Your task to perform on an android device: Show me popular games on the Play Store Image 0: 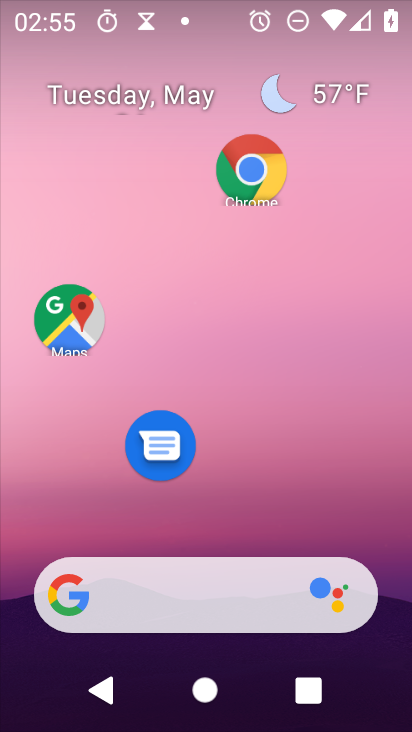
Step 0: drag from (211, 723) to (212, 105)
Your task to perform on an android device: Show me popular games on the Play Store Image 1: 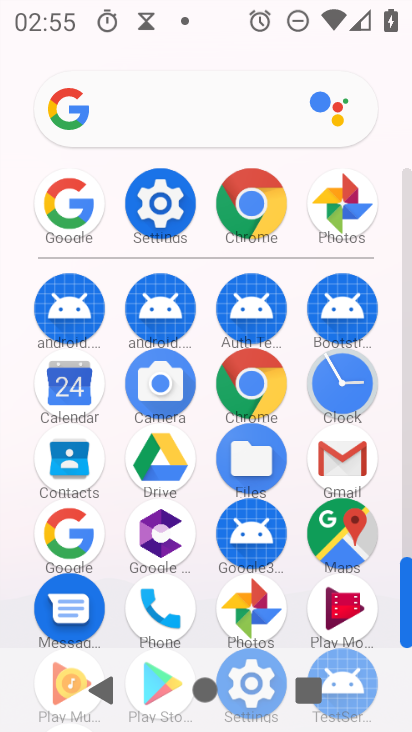
Step 1: drag from (191, 646) to (197, 193)
Your task to perform on an android device: Show me popular games on the Play Store Image 2: 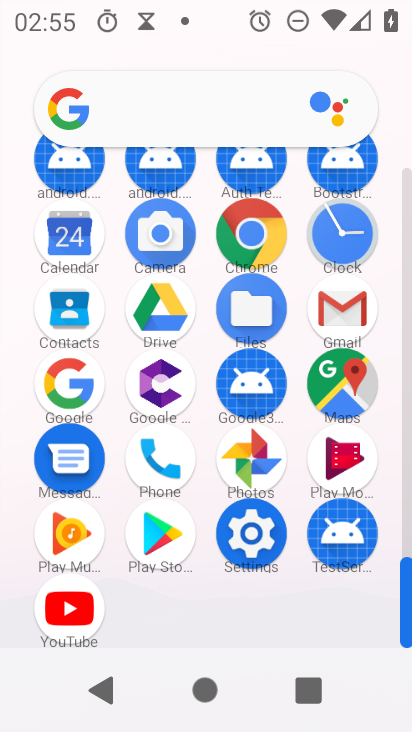
Step 2: click (171, 537)
Your task to perform on an android device: Show me popular games on the Play Store Image 3: 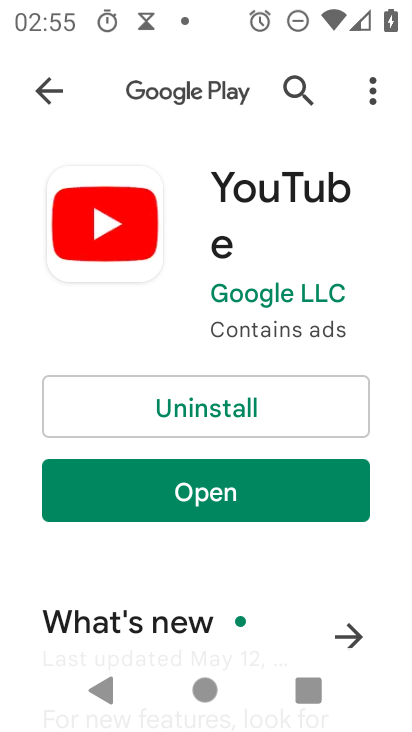
Step 3: click (49, 91)
Your task to perform on an android device: Show me popular games on the Play Store Image 4: 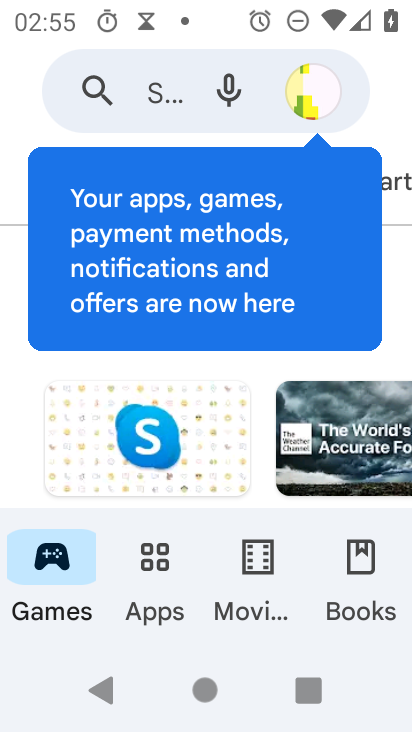
Step 4: drag from (214, 488) to (207, 140)
Your task to perform on an android device: Show me popular games on the Play Store Image 5: 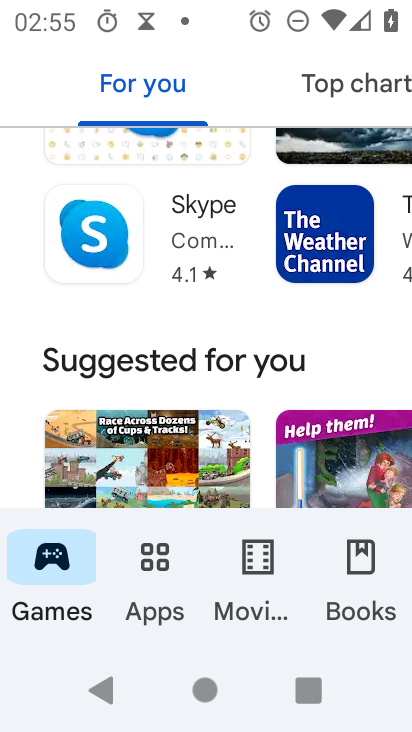
Step 5: drag from (205, 427) to (201, 102)
Your task to perform on an android device: Show me popular games on the Play Store Image 6: 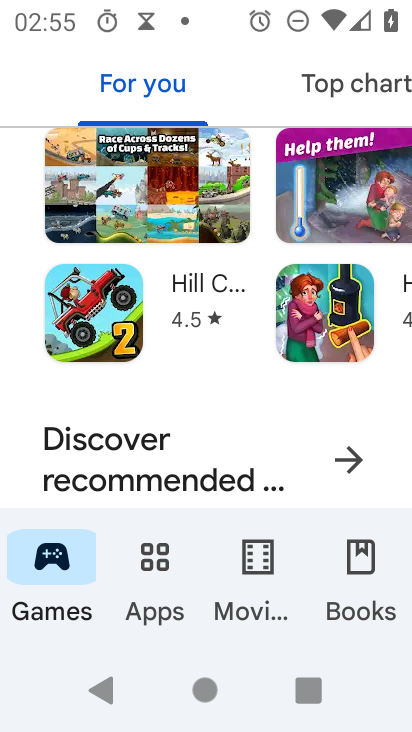
Step 6: drag from (223, 478) to (227, 157)
Your task to perform on an android device: Show me popular games on the Play Store Image 7: 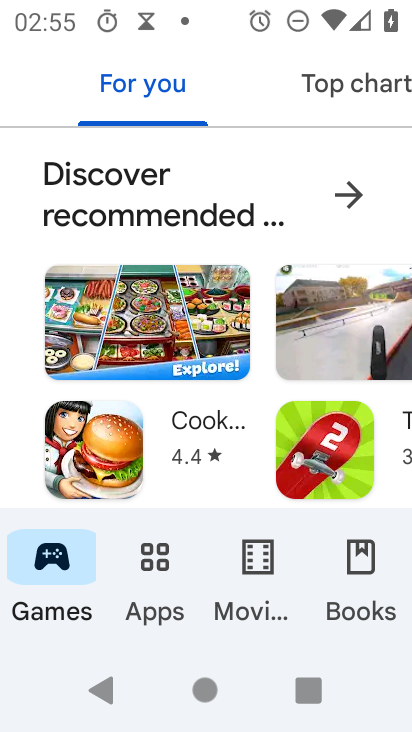
Step 7: drag from (233, 465) to (233, 129)
Your task to perform on an android device: Show me popular games on the Play Store Image 8: 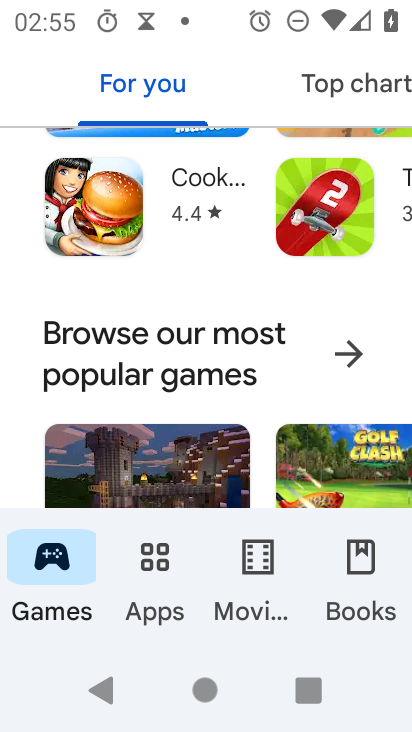
Step 8: click (237, 367)
Your task to perform on an android device: Show me popular games on the Play Store Image 9: 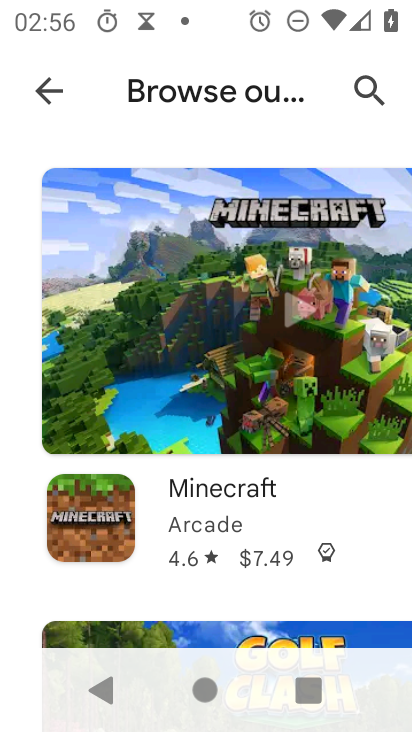
Step 9: task complete